Your task to perform on an android device: Open location settings Image 0: 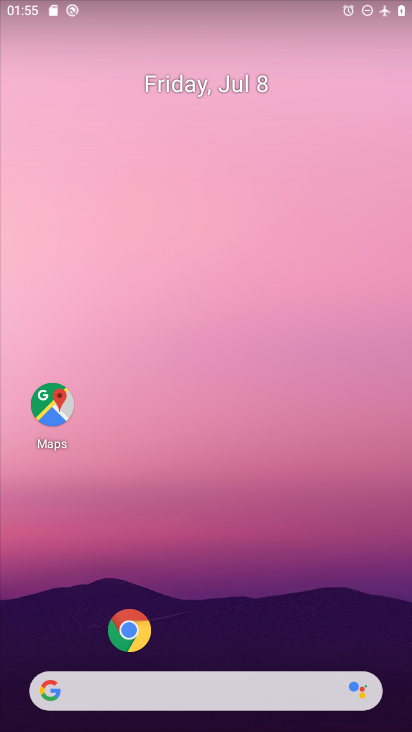
Step 0: drag from (227, 656) to (146, 0)
Your task to perform on an android device: Open location settings Image 1: 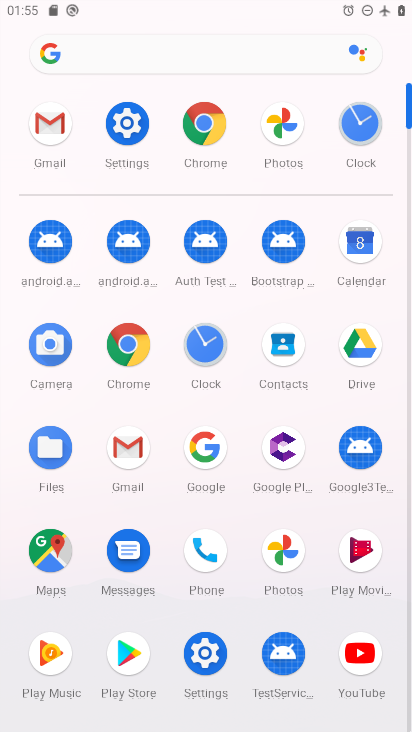
Step 1: click (135, 130)
Your task to perform on an android device: Open location settings Image 2: 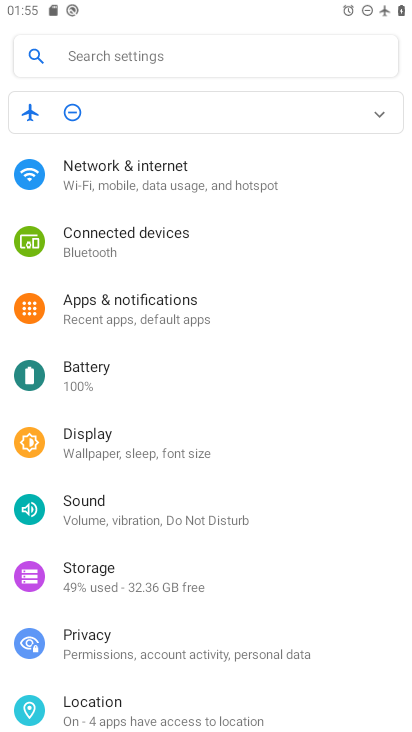
Step 2: click (163, 710)
Your task to perform on an android device: Open location settings Image 3: 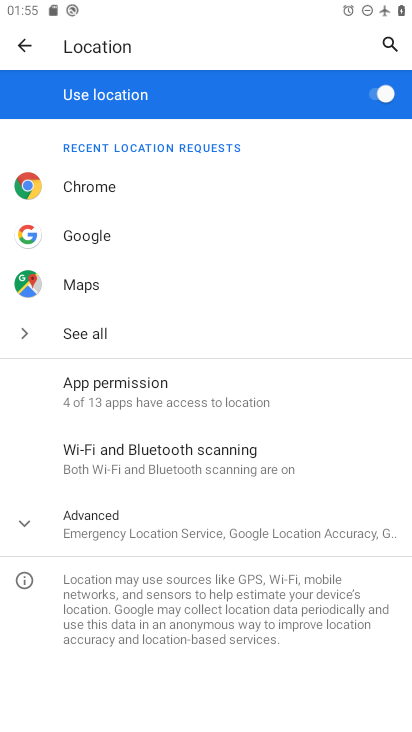
Step 3: click (221, 533)
Your task to perform on an android device: Open location settings Image 4: 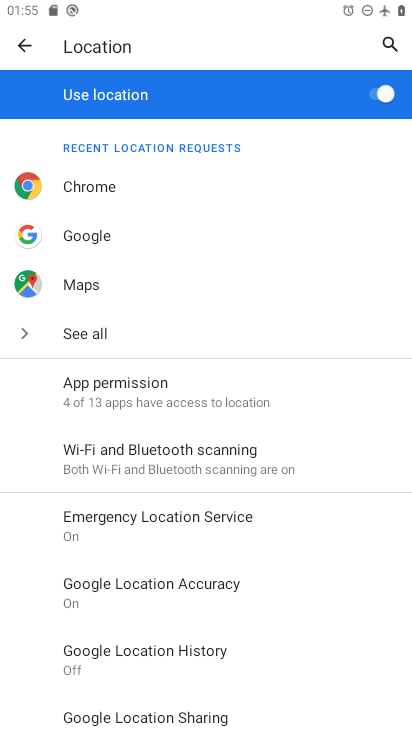
Step 4: task complete